Your task to perform on an android device: Check the news Image 0: 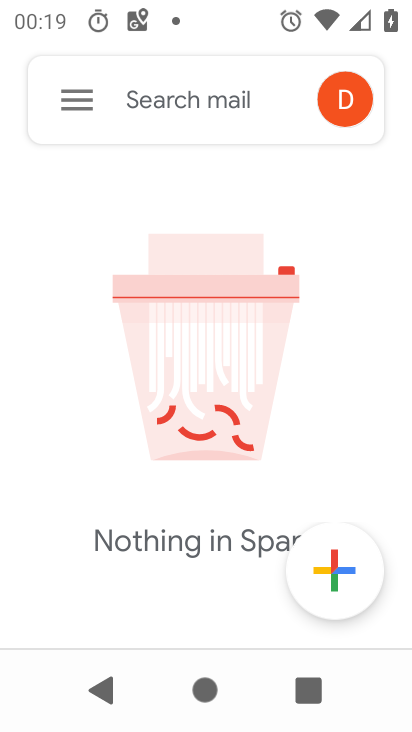
Step 0: press home button
Your task to perform on an android device: Check the news Image 1: 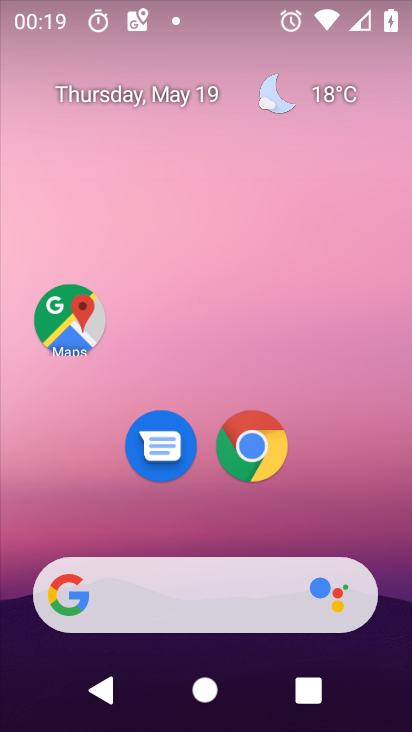
Step 1: click (83, 596)
Your task to perform on an android device: Check the news Image 2: 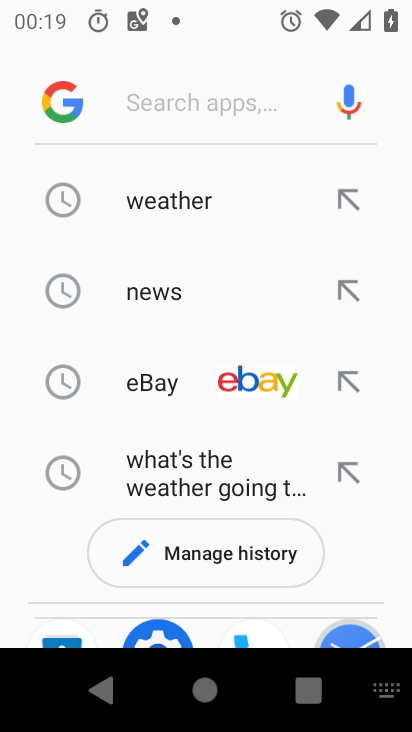
Step 2: click (142, 288)
Your task to perform on an android device: Check the news Image 3: 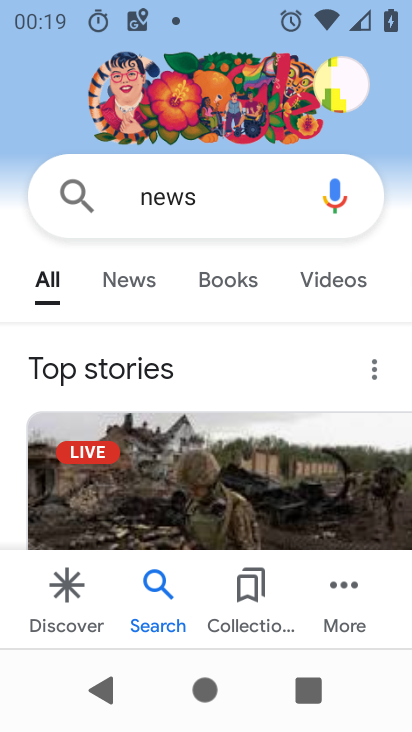
Step 3: click (124, 274)
Your task to perform on an android device: Check the news Image 4: 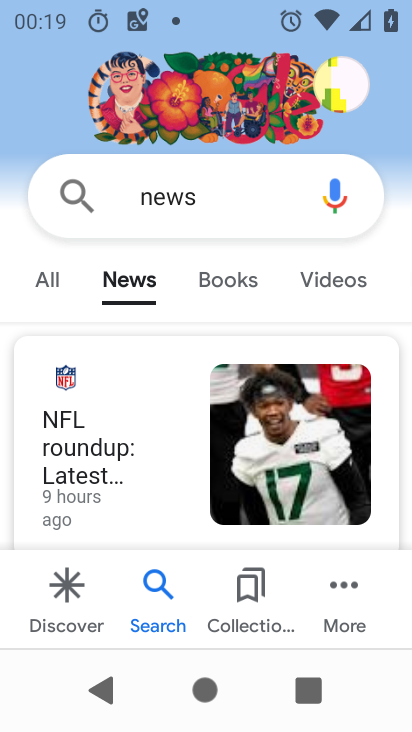
Step 4: task complete